Your task to perform on an android device: Search for Italian restaurants on Maps Image 0: 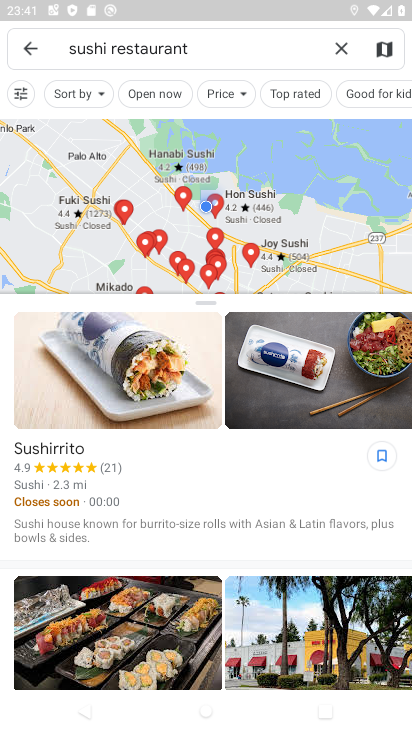
Step 0: click (338, 43)
Your task to perform on an android device: Search for Italian restaurants on Maps Image 1: 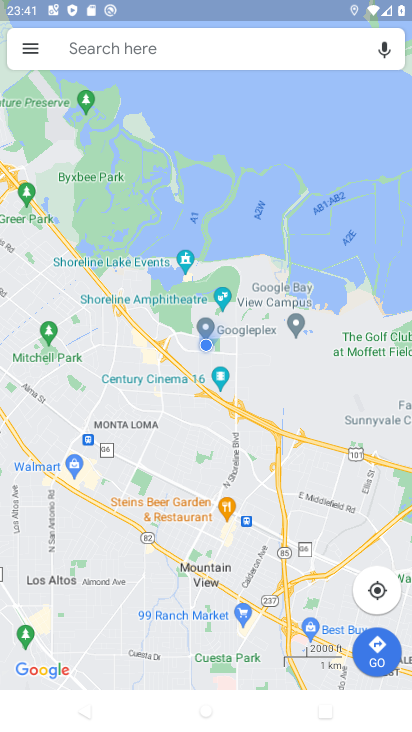
Step 1: click (184, 46)
Your task to perform on an android device: Search for Italian restaurants on Maps Image 2: 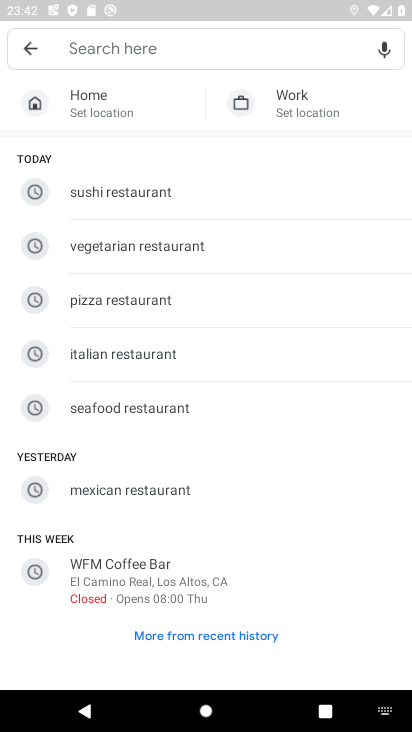
Step 2: click (114, 355)
Your task to perform on an android device: Search for Italian restaurants on Maps Image 3: 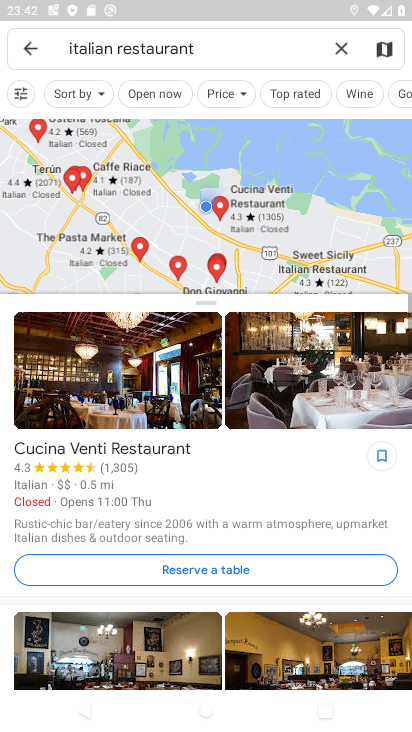
Step 3: task complete